Your task to perform on an android device: turn off airplane mode Image 0: 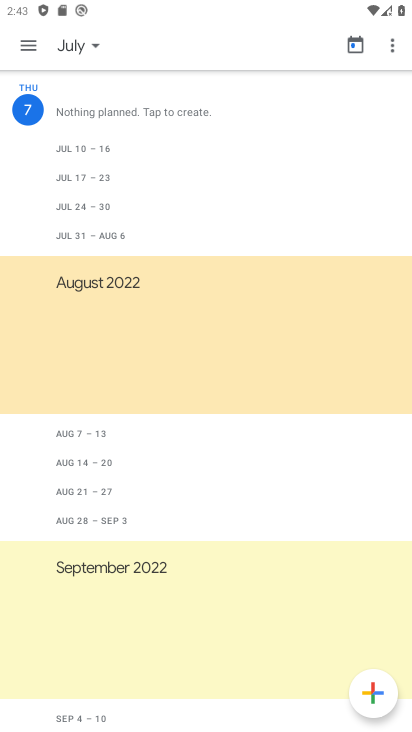
Step 0: press home button
Your task to perform on an android device: turn off airplane mode Image 1: 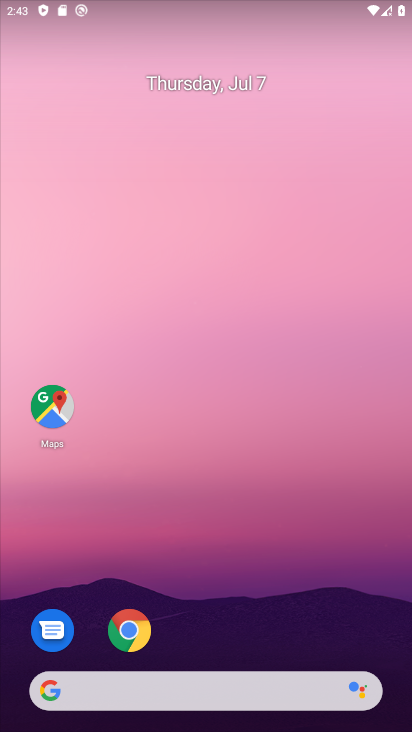
Step 1: drag from (295, 654) to (250, 181)
Your task to perform on an android device: turn off airplane mode Image 2: 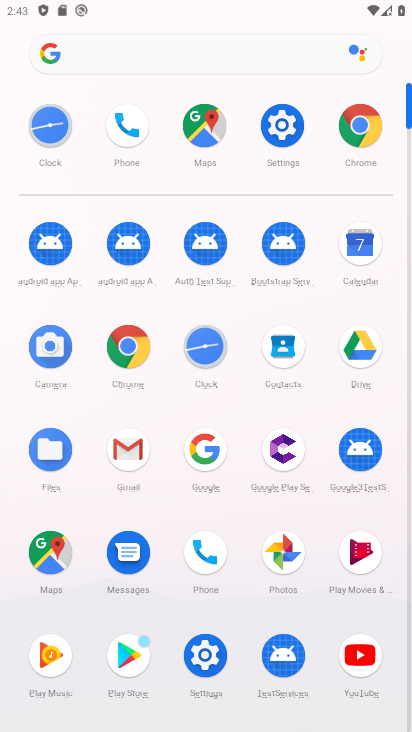
Step 2: click (291, 119)
Your task to perform on an android device: turn off airplane mode Image 3: 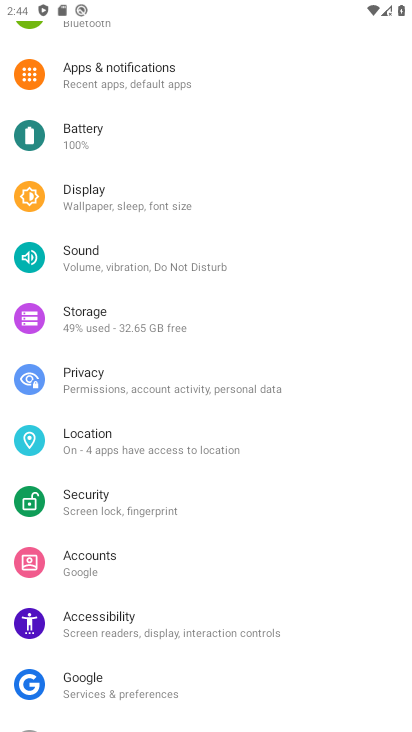
Step 3: drag from (135, 93) to (133, 348)
Your task to perform on an android device: turn off airplane mode Image 4: 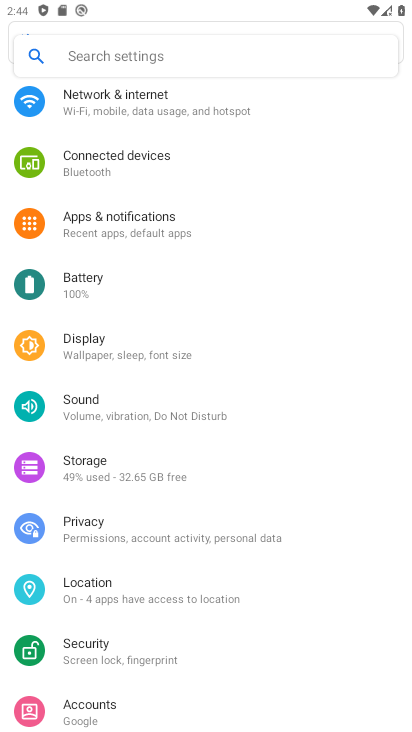
Step 4: drag from (143, 148) to (146, 382)
Your task to perform on an android device: turn off airplane mode Image 5: 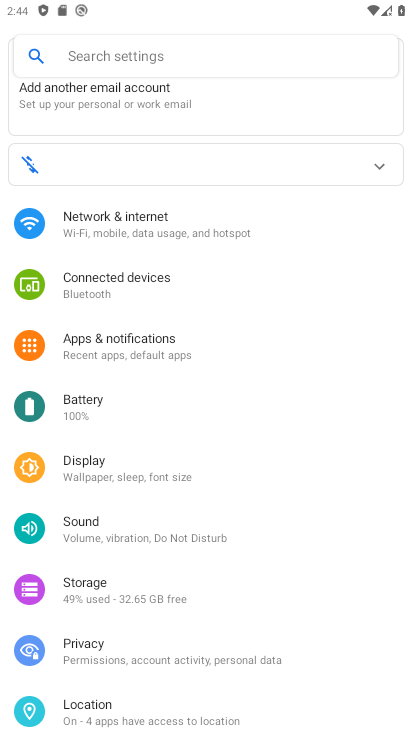
Step 5: click (171, 235)
Your task to perform on an android device: turn off airplane mode Image 6: 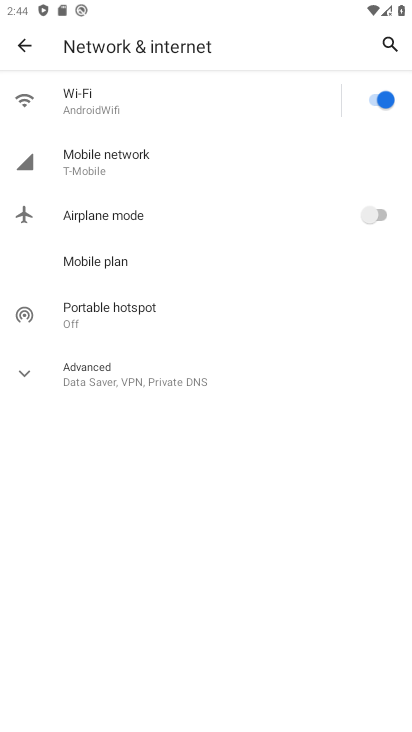
Step 6: click (15, 38)
Your task to perform on an android device: turn off airplane mode Image 7: 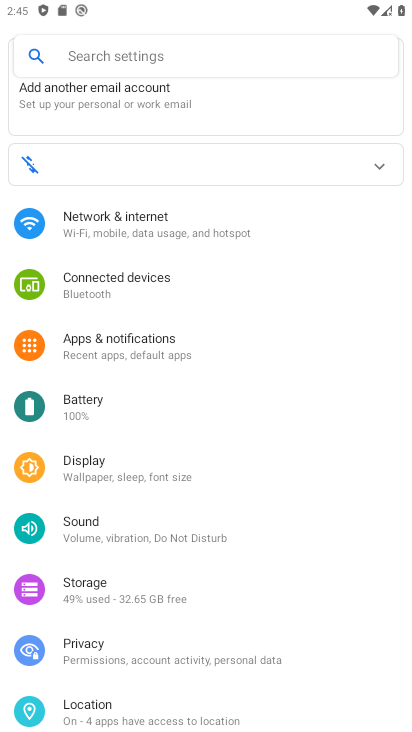
Step 7: click (173, 207)
Your task to perform on an android device: turn off airplane mode Image 8: 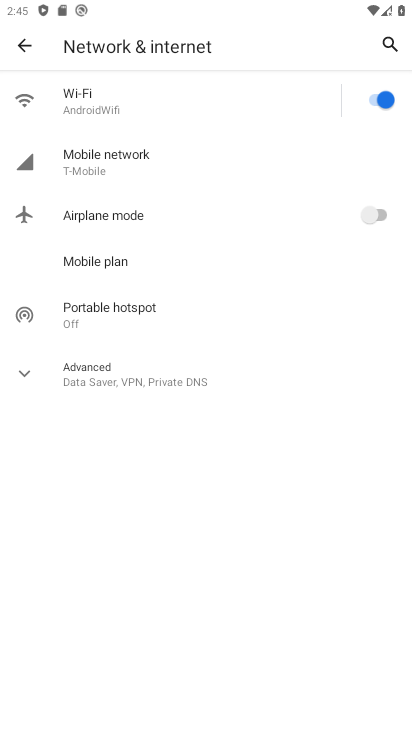
Step 8: task complete